Your task to perform on an android device: Open Yahoo.com Image 0: 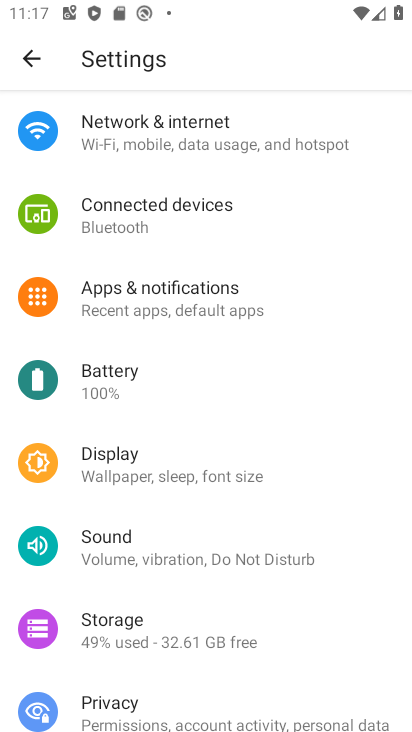
Step 0: press home button
Your task to perform on an android device: Open Yahoo.com Image 1: 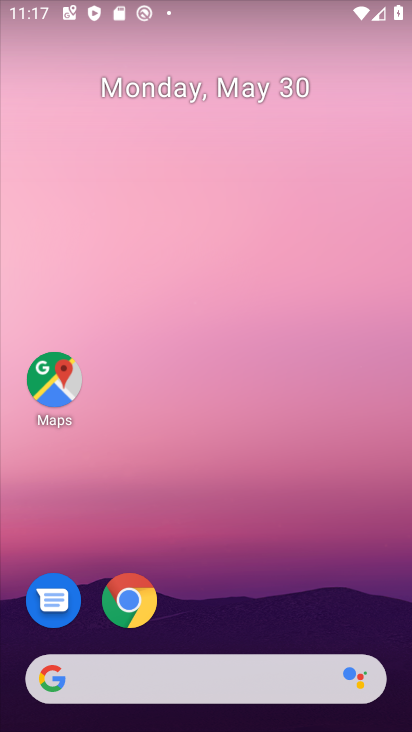
Step 1: click (128, 604)
Your task to perform on an android device: Open Yahoo.com Image 2: 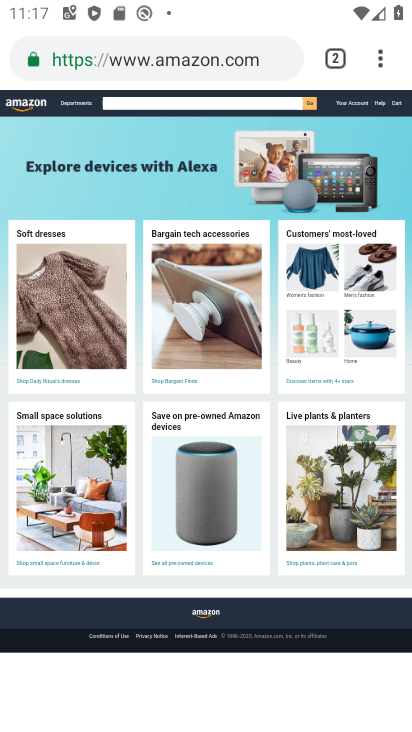
Step 2: click (381, 64)
Your task to perform on an android device: Open Yahoo.com Image 3: 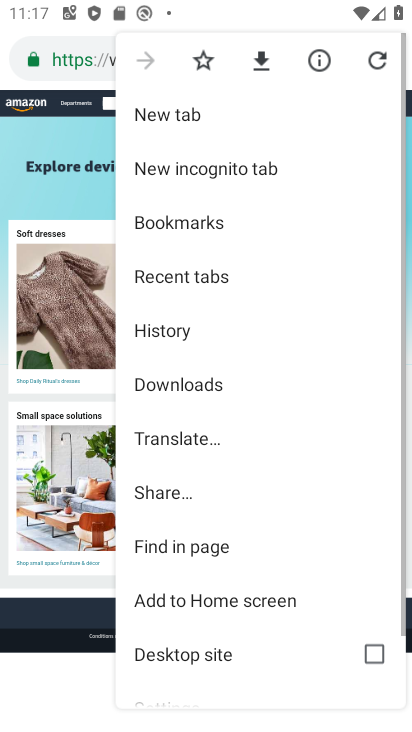
Step 3: click (176, 112)
Your task to perform on an android device: Open Yahoo.com Image 4: 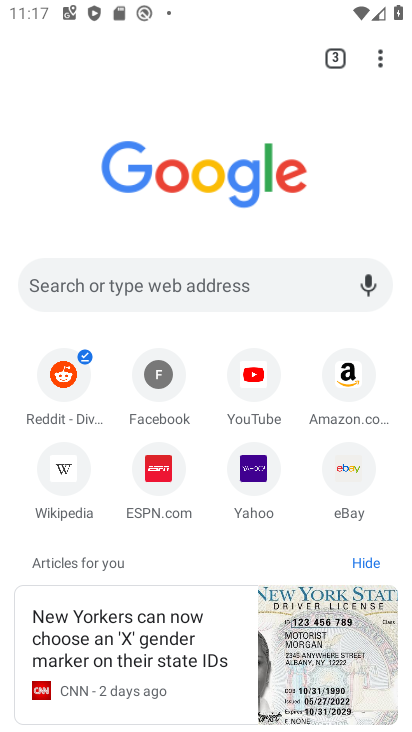
Step 4: click (253, 476)
Your task to perform on an android device: Open Yahoo.com Image 5: 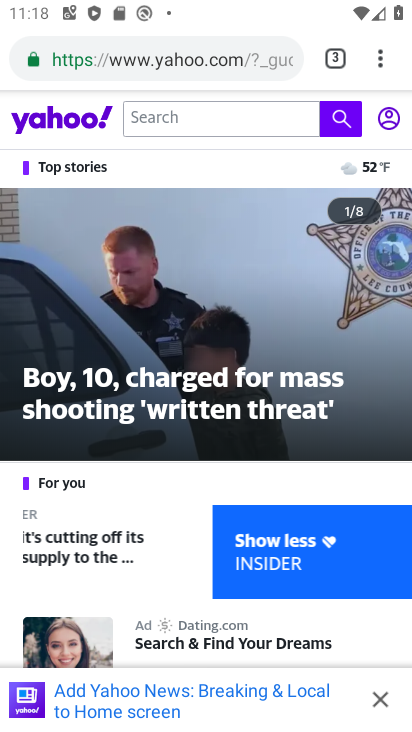
Step 5: task complete